Your task to perform on an android device: change the clock display to digital Image 0: 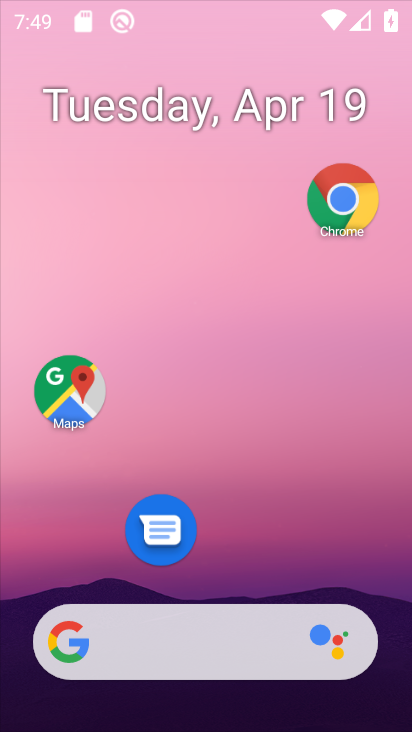
Step 0: click (363, 110)
Your task to perform on an android device: change the clock display to digital Image 1: 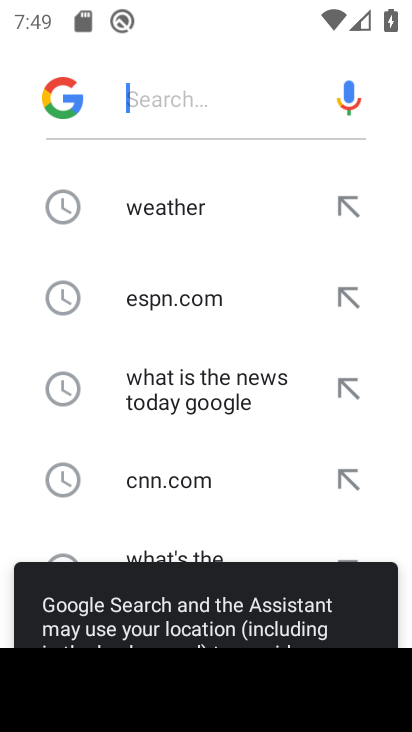
Step 1: press home button
Your task to perform on an android device: change the clock display to digital Image 2: 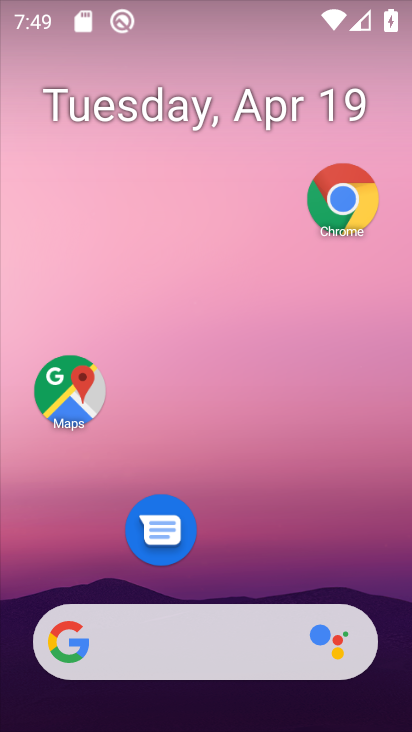
Step 2: drag from (232, 550) to (305, 161)
Your task to perform on an android device: change the clock display to digital Image 3: 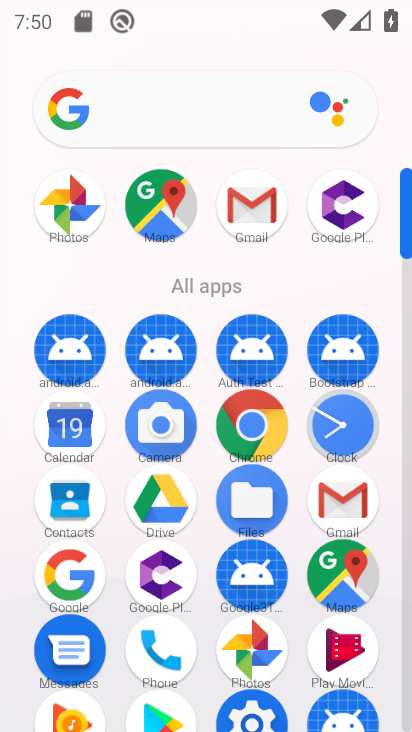
Step 3: click (339, 418)
Your task to perform on an android device: change the clock display to digital Image 4: 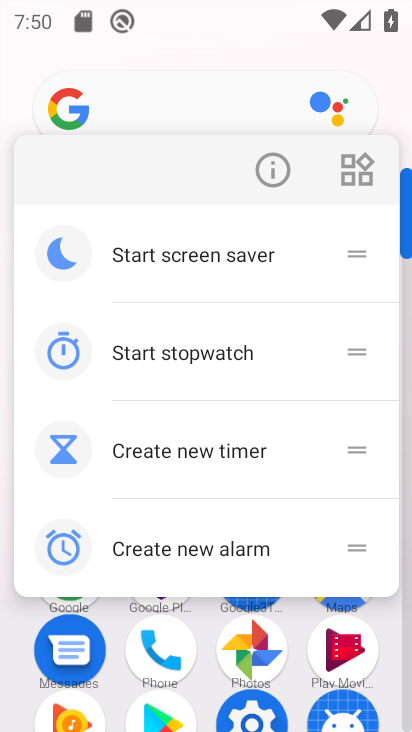
Step 4: click (284, 174)
Your task to perform on an android device: change the clock display to digital Image 5: 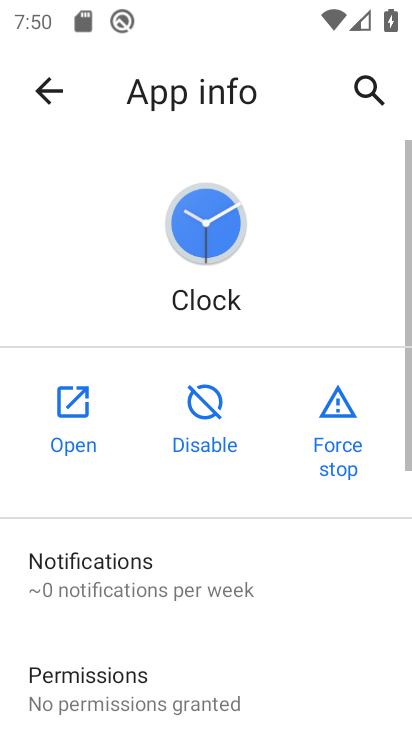
Step 5: click (65, 398)
Your task to perform on an android device: change the clock display to digital Image 6: 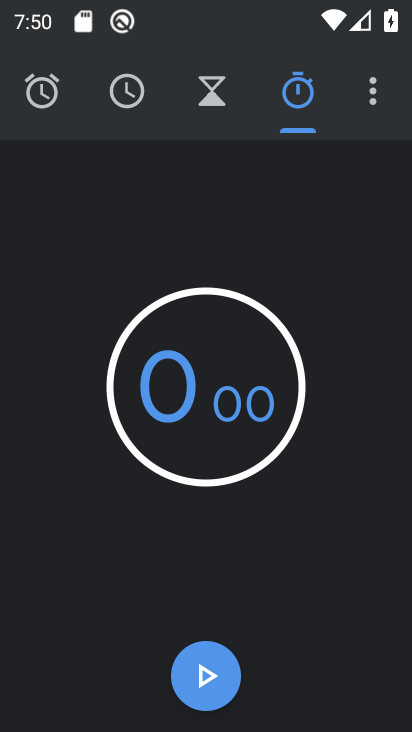
Step 6: click (374, 111)
Your task to perform on an android device: change the clock display to digital Image 7: 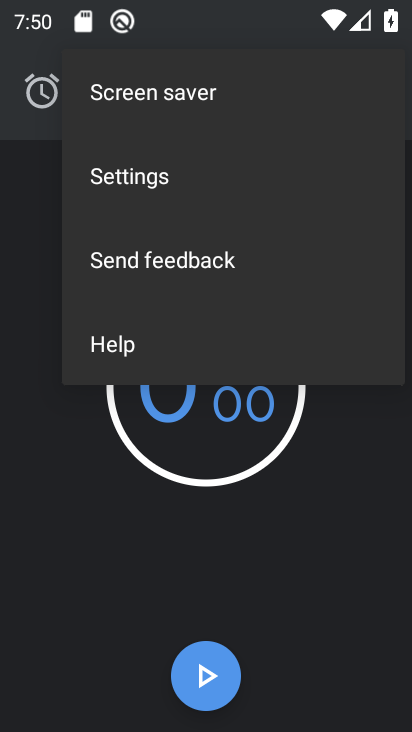
Step 7: click (176, 175)
Your task to perform on an android device: change the clock display to digital Image 8: 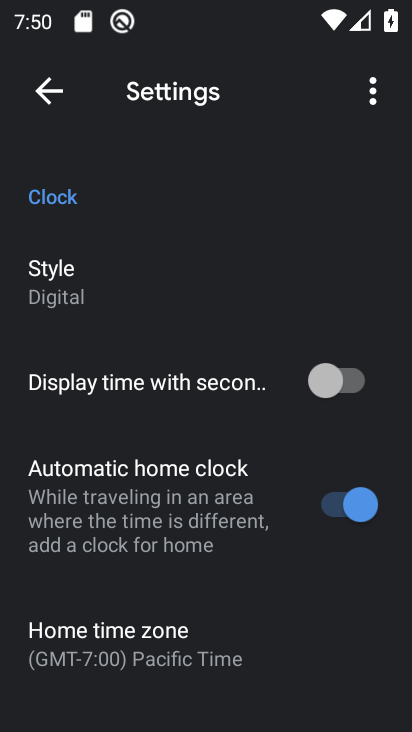
Step 8: click (74, 286)
Your task to perform on an android device: change the clock display to digital Image 9: 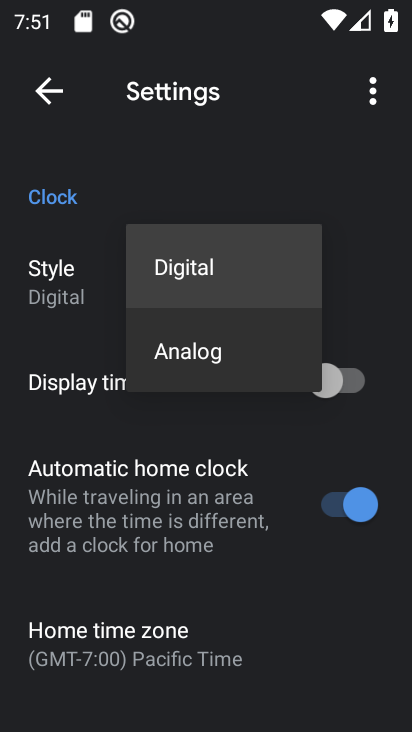
Step 9: click (235, 266)
Your task to perform on an android device: change the clock display to digital Image 10: 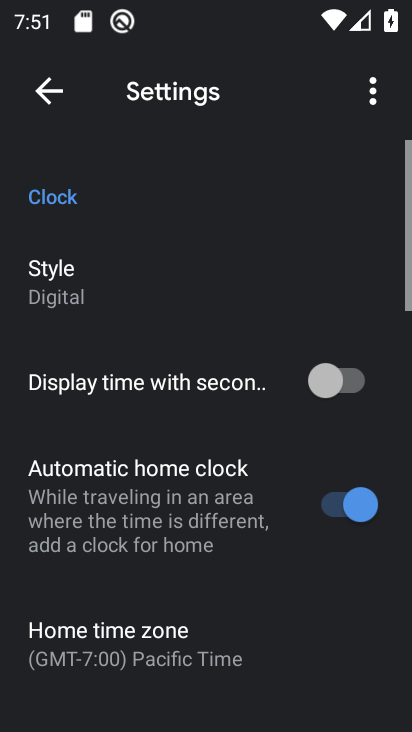
Step 10: task complete